Your task to perform on an android device: open chrome privacy settings Image 0: 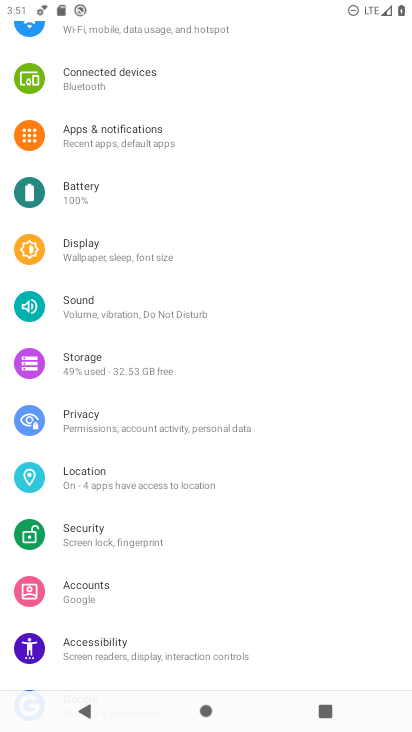
Step 0: press home button
Your task to perform on an android device: open chrome privacy settings Image 1: 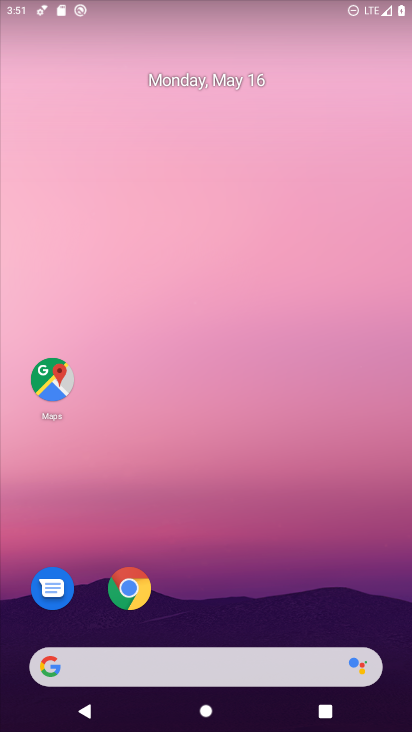
Step 1: click (141, 594)
Your task to perform on an android device: open chrome privacy settings Image 2: 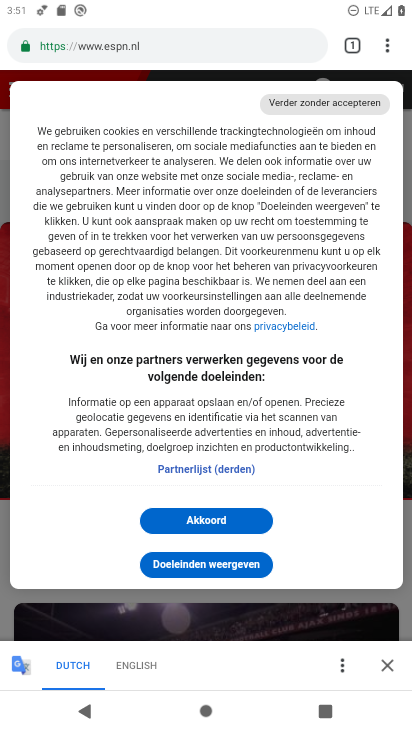
Step 2: click (387, 50)
Your task to perform on an android device: open chrome privacy settings Image 3: 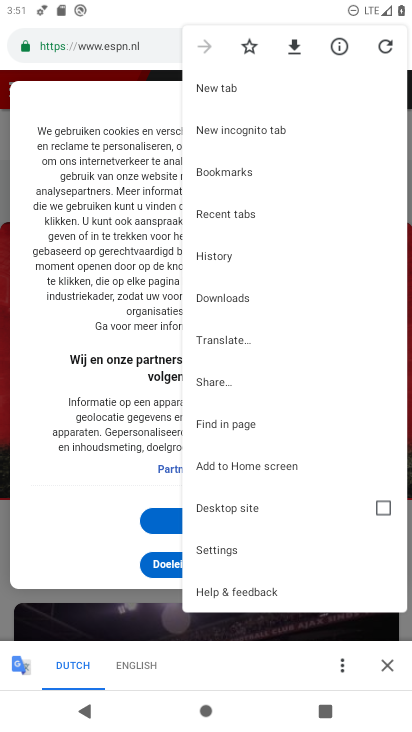
Step 3: click (214, 553)
Your task to perform on an android device: open chrome privacy settings Image 4: 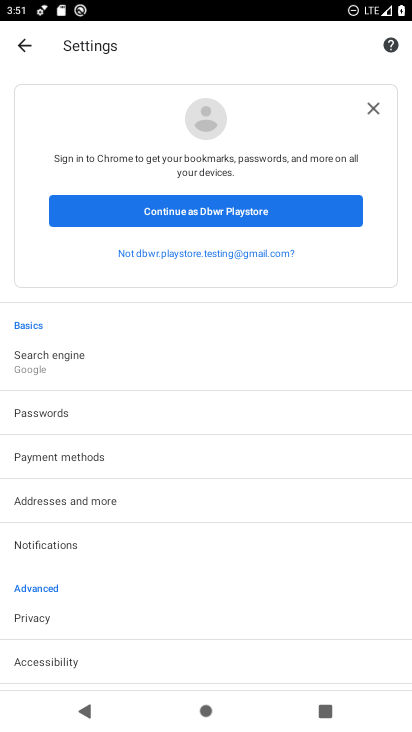
Step 4: click (42, 619)
Your task to perform on an android device: open chrome privacy settings Image 5: 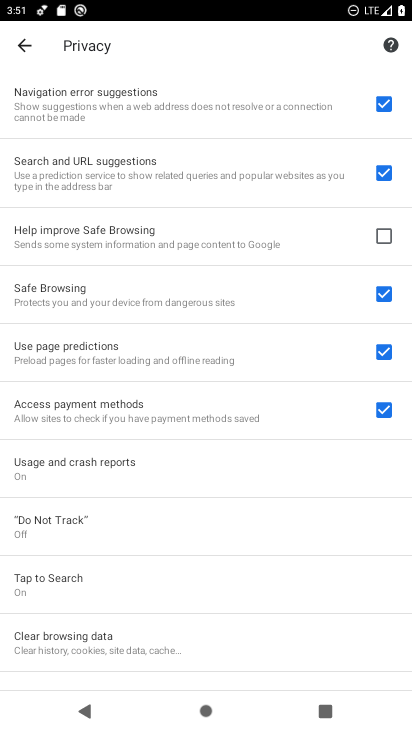
Step 5: task complete